Your task to perform on an android device: empty trash in google photos Image 0: 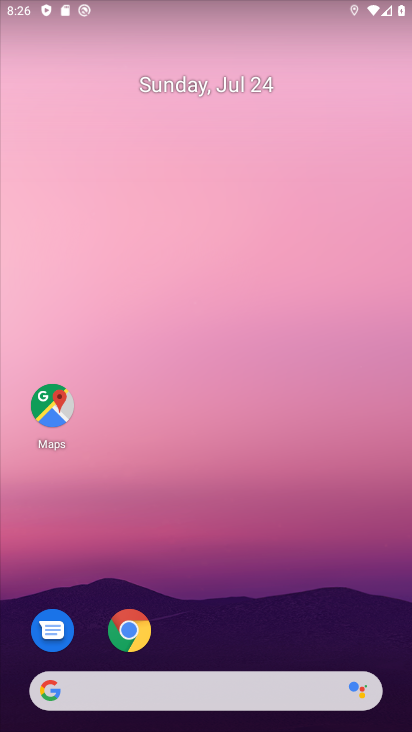
Step 0: drag from (253, 652) to (259, 86)
Your task to perform on an android device: empty trash in google photos Image 1: 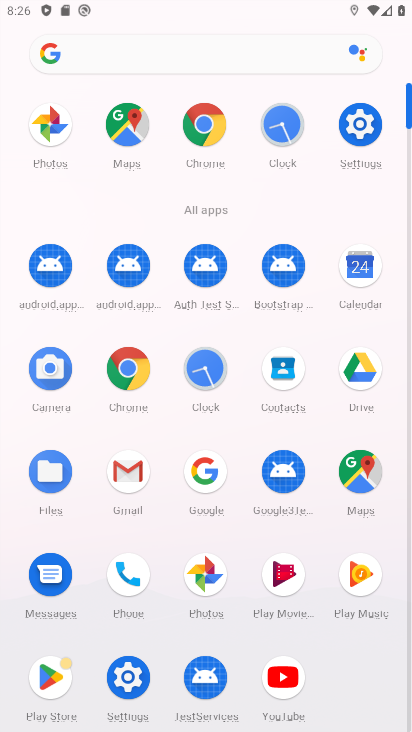
Step 1: click (47, 123)
Your task to perform on an android device: empty trash in google photos Image 2: 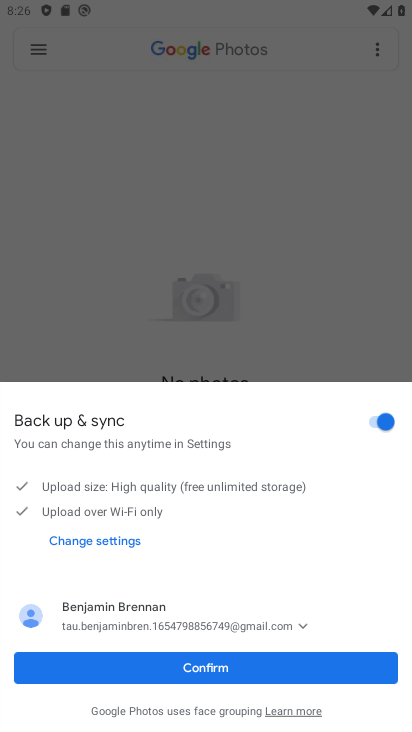
Step 2: click (221, 682)
Your task to perform on an android device: empty trash in google photos Image 3: 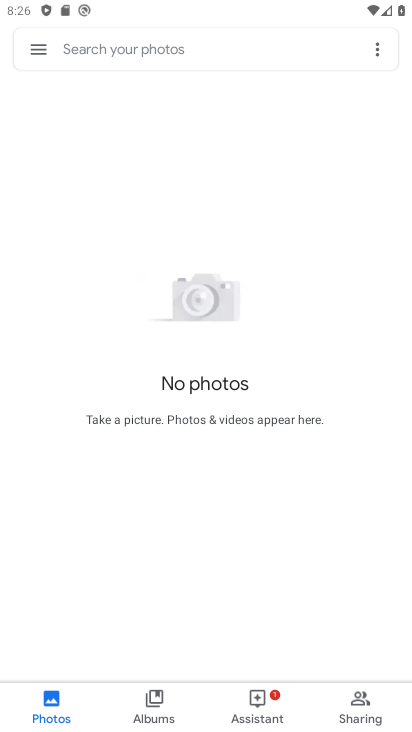
Step 3: click (29, 48)
Your task to perform on an android device: empty trash in google photos Image 4: 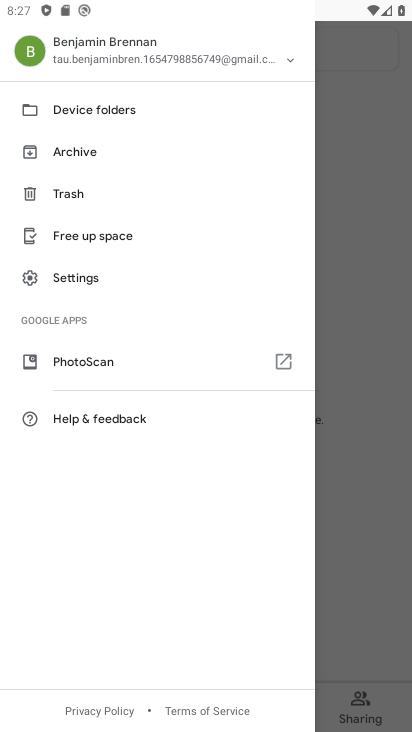
Step 4: click (81, 195)
Your task to perform on an android device: empty trash in google photos Image 5: 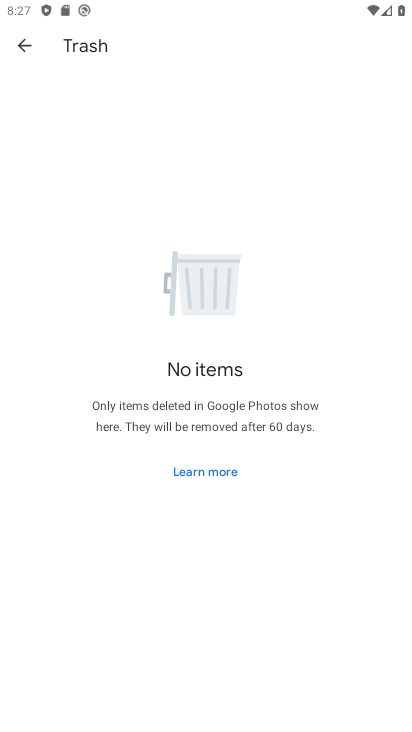
Step 5: task complete